Your task to perform on an android device: Turn on the flashlight Image 0: 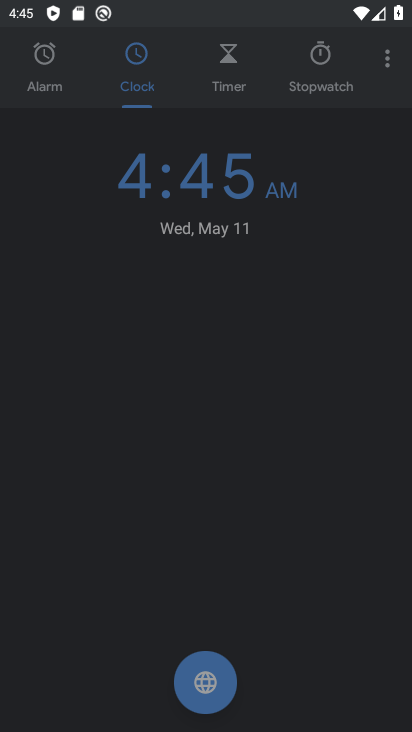
Step 0: press home button
Your task to perform on an android device: Turn on the flashlight Image 1: 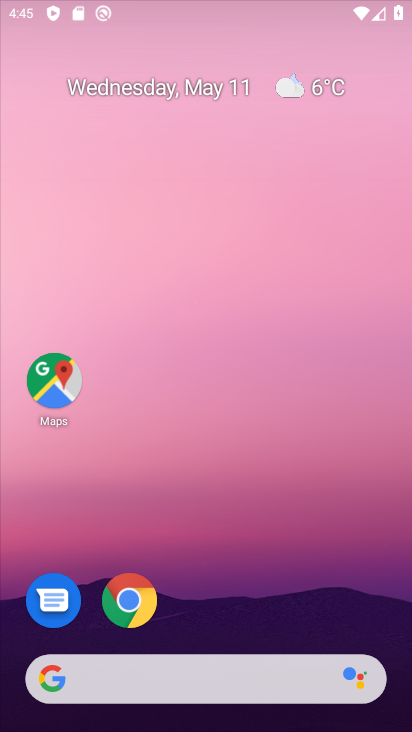
Step 1: task complete